Your task to perform on an android device: find which apps use the phone's location Image 0: 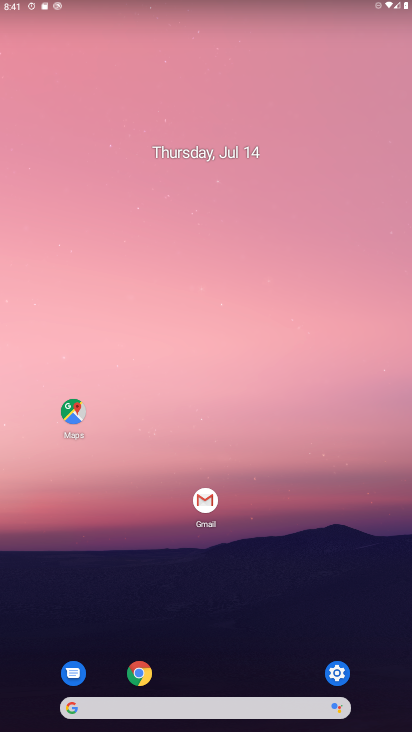
Step 0: click (326, 674)
Your task to perform on an android device: find which apps use the phone's location Image 1: 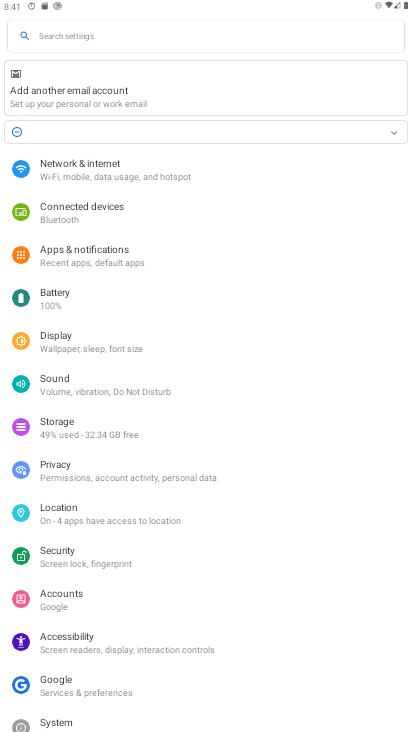
Step 1: click (86, 505)
Your task to perform on an android device: find which apps use the phone's location Image 2: 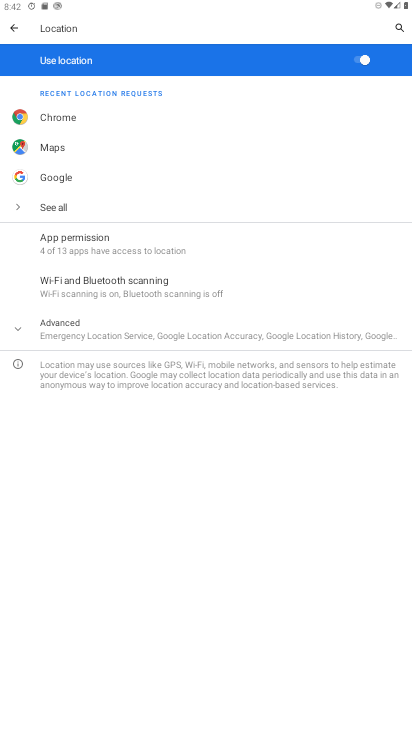
Step 2: task complete